Your task to perform on an android device: Open location settings Image 0: 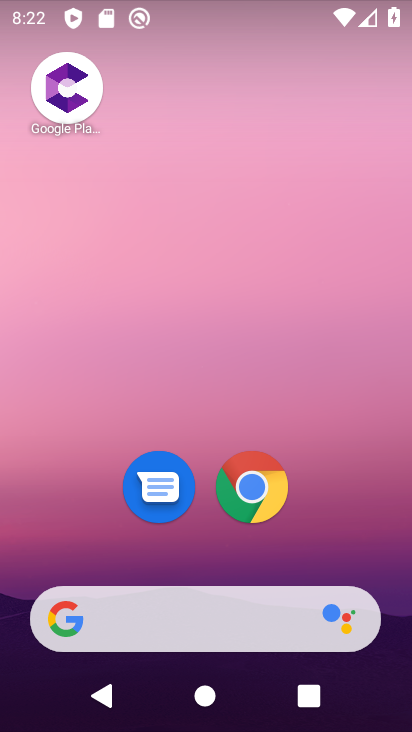
Step 0: press home button
Your task to perform on an android device: Open location settings Image 1: 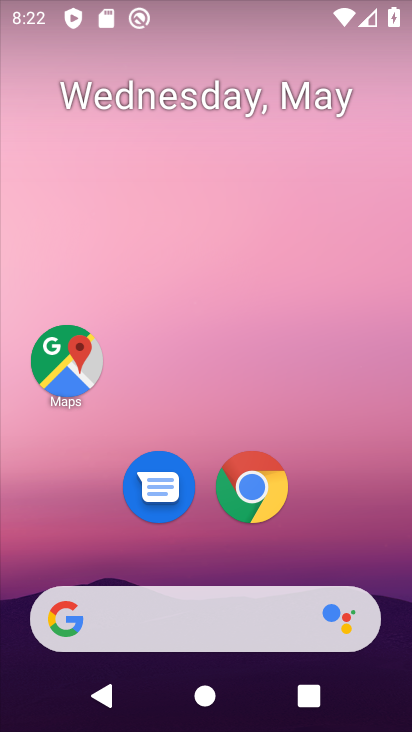
Step 1: click (404, 419)
Your task to perform on an android device: Open location settings Image 2: 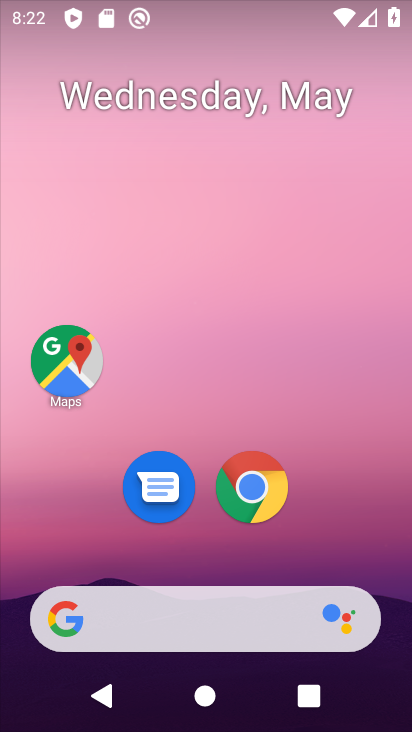
Step 2: drag from (229, 561) to (303, 125)
Your task to perform on an android device: Open location settings Image 3: 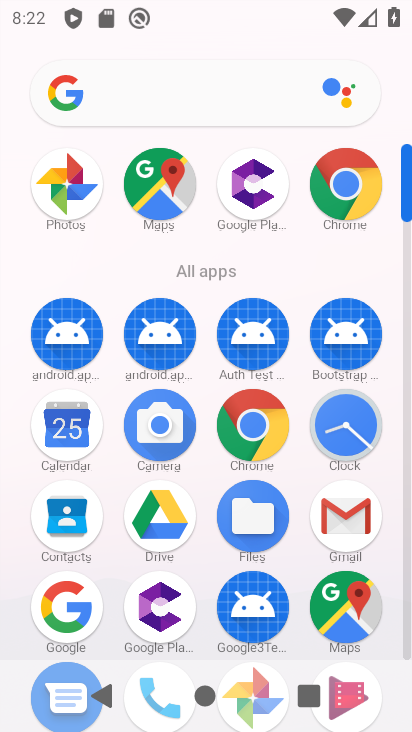
Step 3: drag from (194, 567) to (252, 52)
Your task to perform on an android device: Open location settings Image 4: 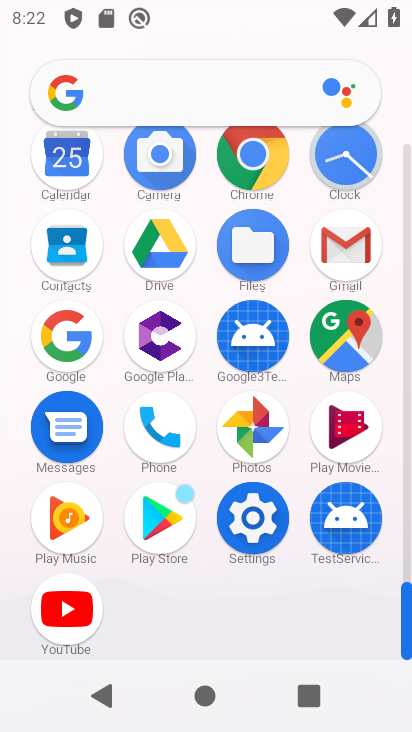
Step 4: click (251, 516)
Your task to perform on an android device: Open location settings Image 5: 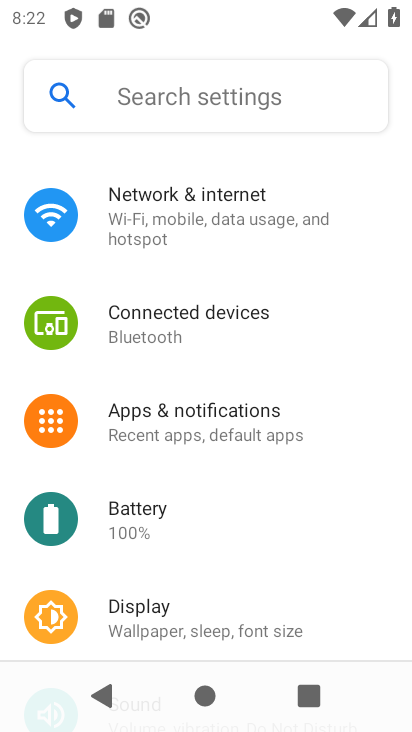
Step 5: drag from (192, 612) to (277, 65)
Your task to perform on an android device: Open location settings Image 6: 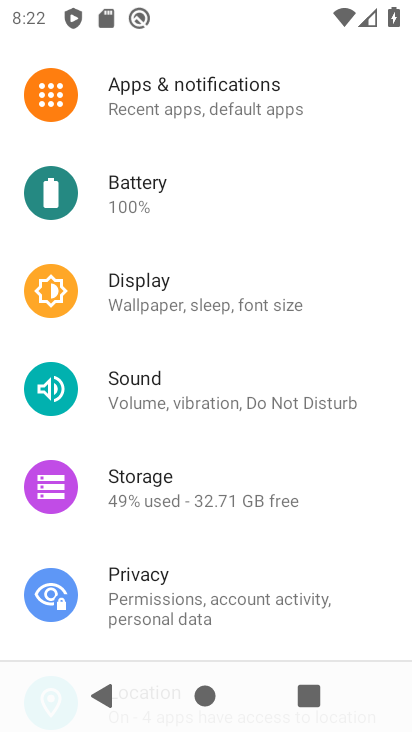
Step 6: drag from (157, 615) to (249, 183)
Your task to perform on an android device: Open location settings Image 7: 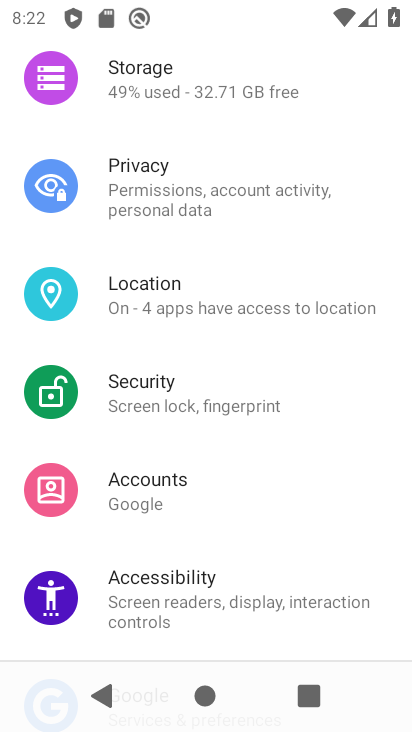
Step 7: click (216, 304)
Your task to perform on an android device: Open location settings Image 8: 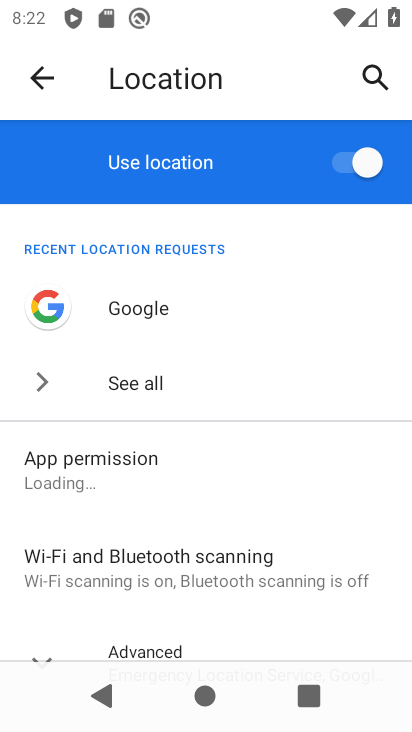
Step 8: drag from (136, 538) to (191, 174)
Your task to perform on an android device: Open location settings Image 9: 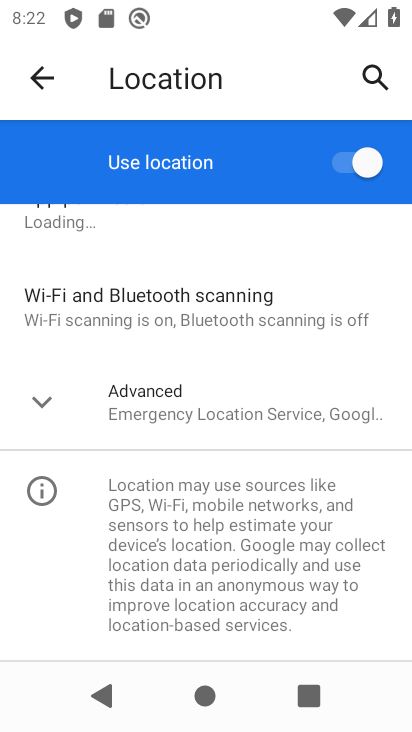
Step 9: click (34, 398)
Your task to perform on an android device: Open location settings Image 10: 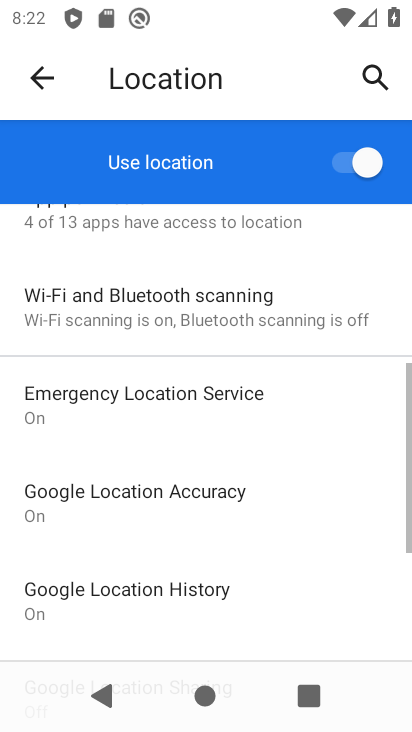
Step 10: task complete